Your task to perform on an android device: Open the map Image 0: 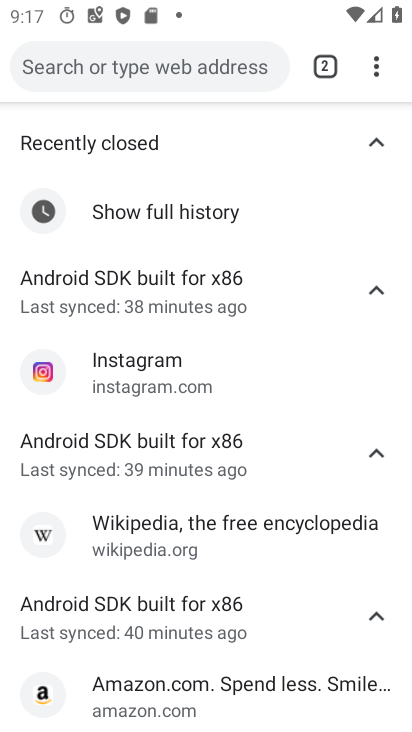
Step 0: click (253, 241)
Your task to perform on an android device: Open the map Image 1: 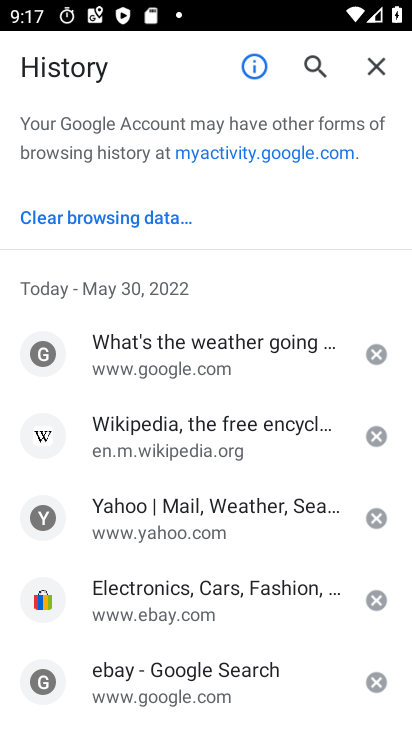
Step 1: press home button
Your task to perform on an android device: Open the map Image 2: 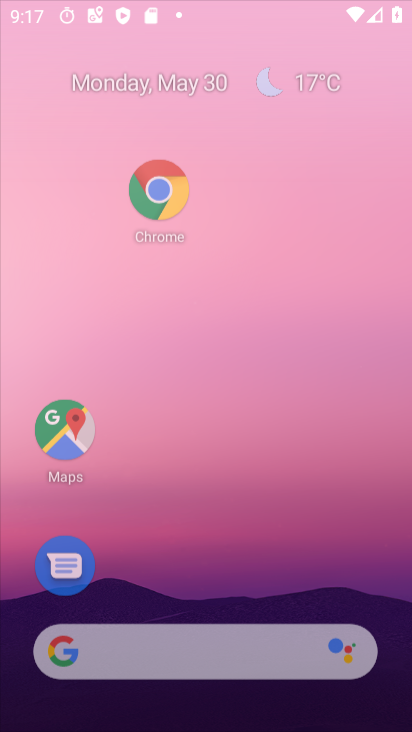
Step 2: drag from (264, 393) to (328, 157)
Your task to perform on an android device: Open the map Image 3: 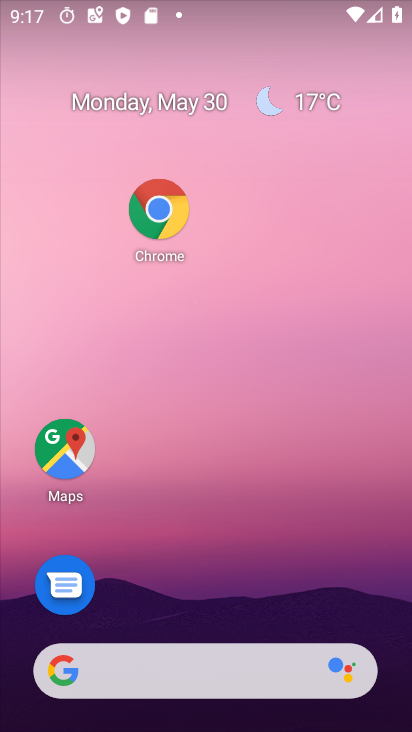
Step 3: click (84, 448)
Your task to perform on an android device: Open the map Image 4: 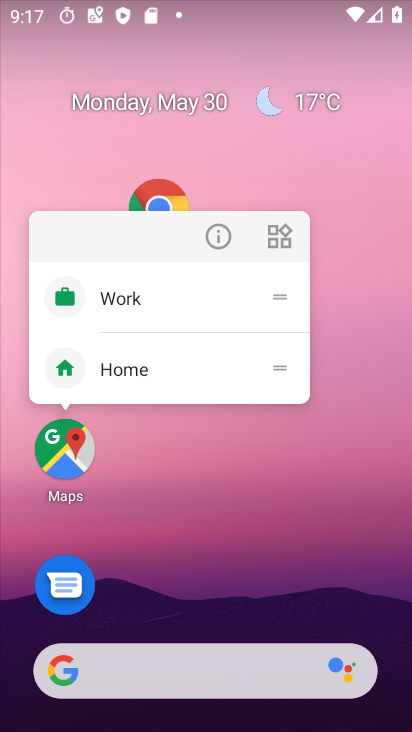
Step 4: click (223, 244)
Your task to perform on an android device: Open the map Image 5: 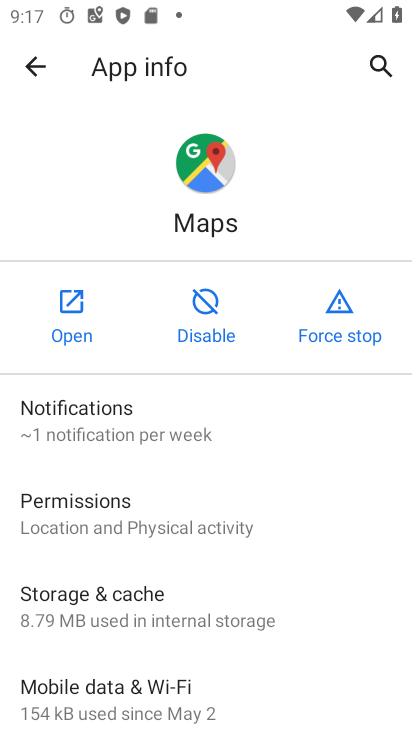
Step 5: click (87, 331)
Your task to perform on an android device: Open the map Image 6: 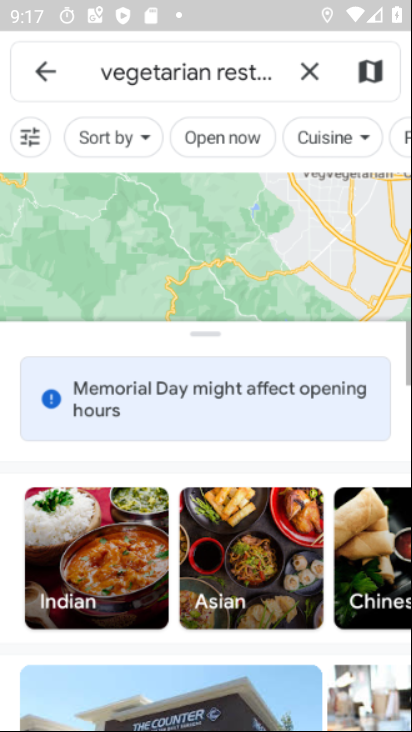
Step 6: task complete